Your task to perform on an android device: Go to Wikipedia Image 0: 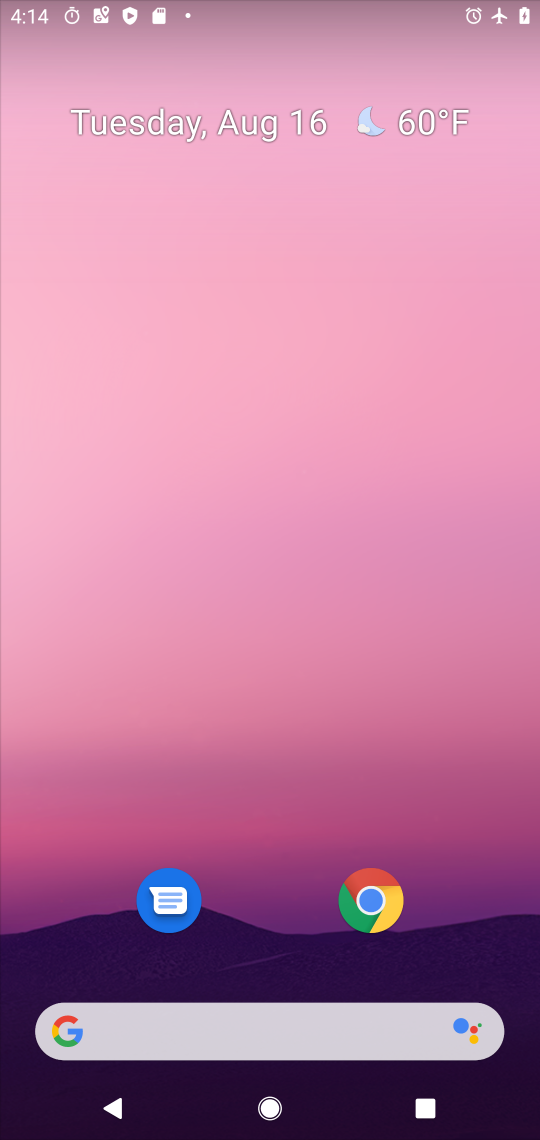
Step 0: click (363, 907)
Your task to perform on an android device: Go to Wikipedia Image 1: 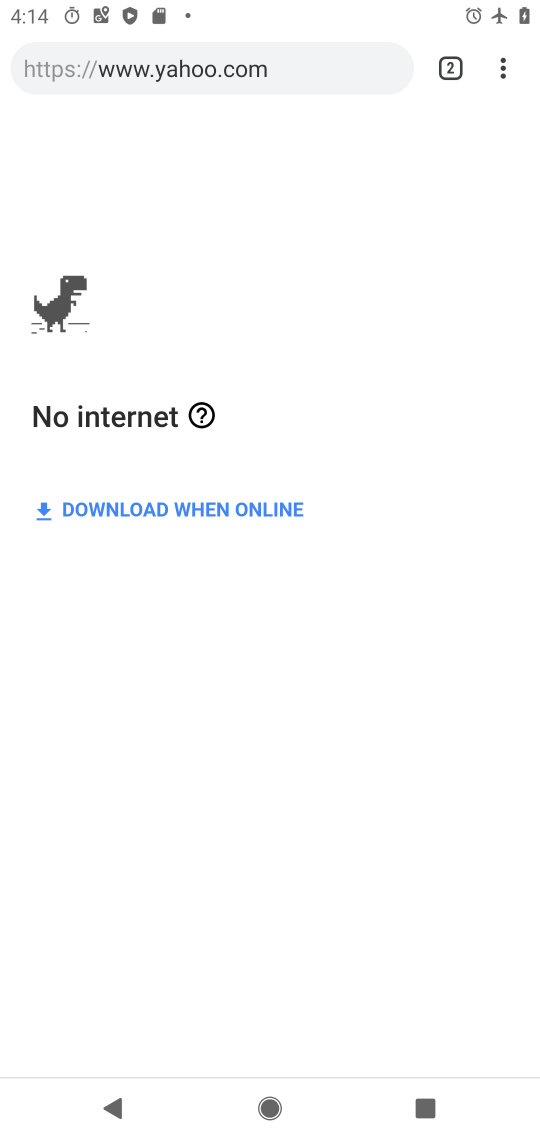
Step 1: task complete